Your task to perform on an android device: Go to privacy settings Image 0: 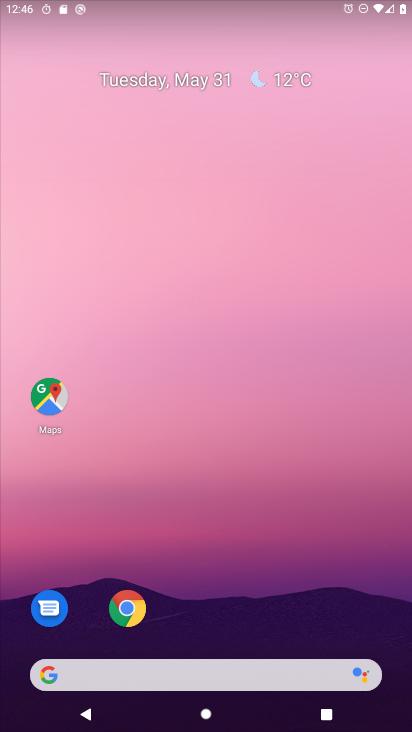
Step 0: drag from (278, 659) to (328, 12)
Your task to perform on an android device: Go to privacy settings Image 1: 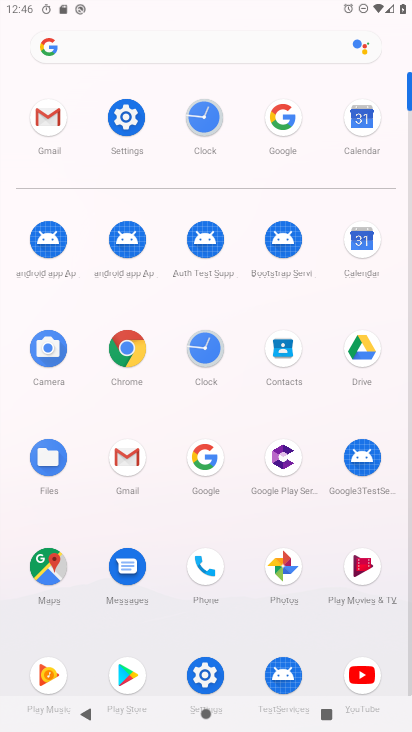
Step 1: click (125, 118)
Your task to perform on an android device: Go to privacy settings Image 2: 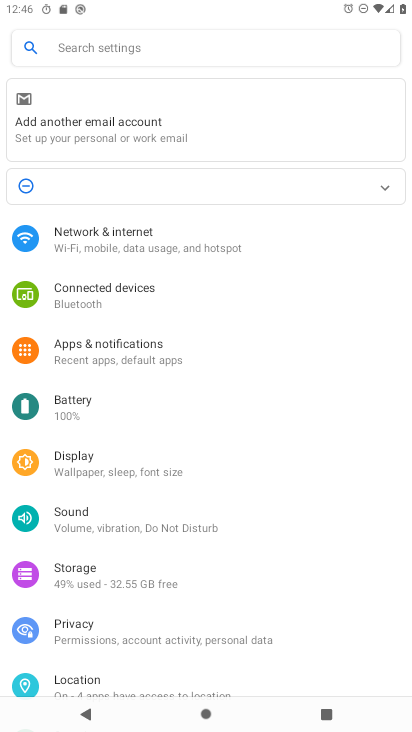
Step 2: click (60, 624)
Your task to perform on an android device: Go to privacy settings Image 3: 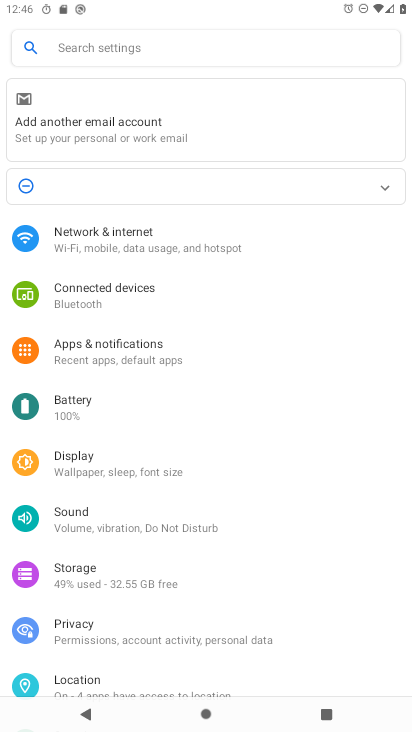
Step 3: click (59, 644)
Your task to perform on an android device: Go to privacy settings Image 4: 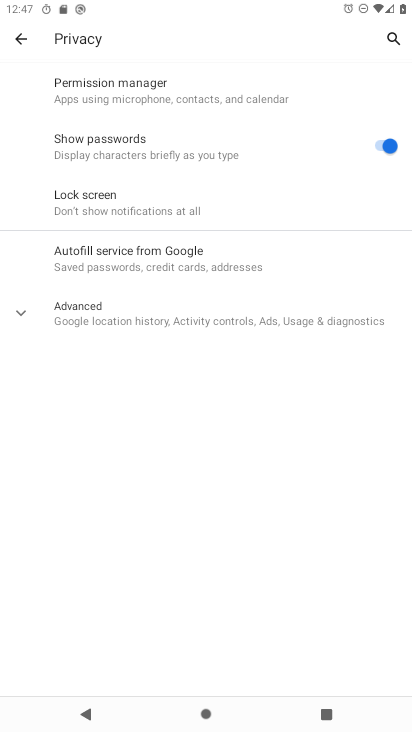
Step 4: task complete